Your task to perform on an android device: change keyboard looks Image 0: 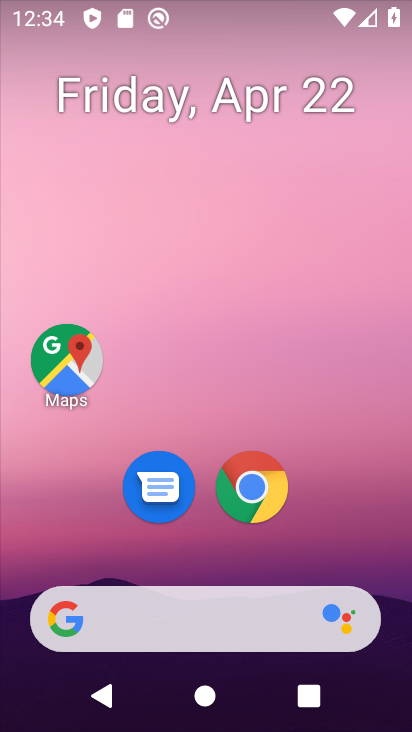
Step 0: drag from (208, 563) to (223, 59)
Your task to perform on an android device: change keyboard looks Image 1: 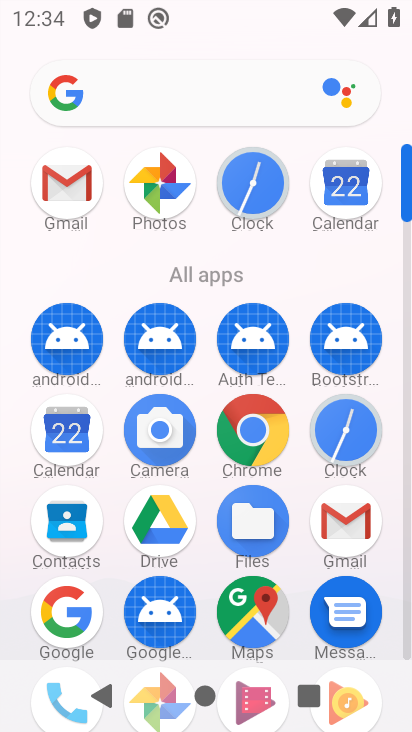
Step 1: drag from (203, 567) to (253, 125)
Your task to perform on an android device: change keyboard looks Image 2: 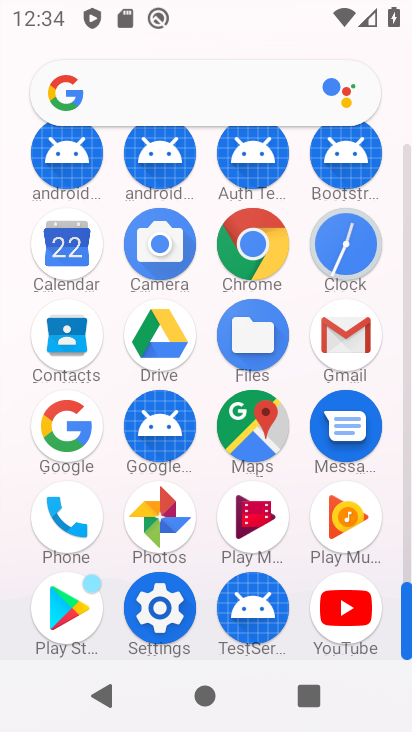
Step 2: click (154, 604)
Your task to perform on an android device: change keyboard looks Image 3: 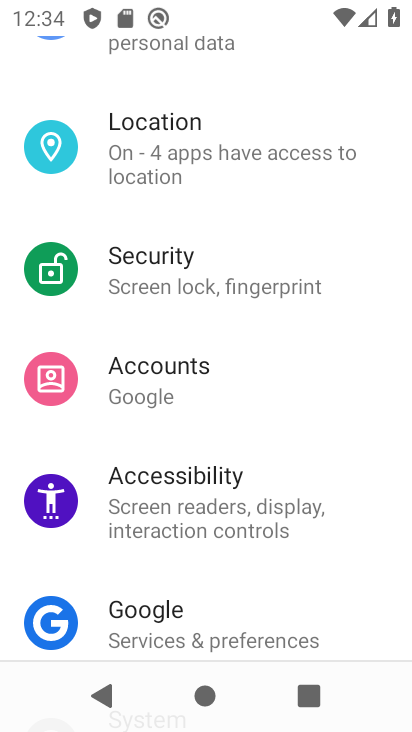
Step 3: drag from (257, 593) to (252, 194)
Your task to perform on an android device: change keyboard looks Image 4: 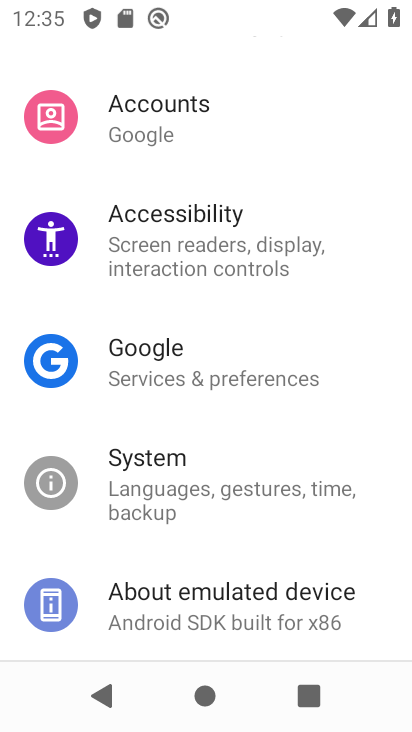
Step 4: click (184, 501)
Your task to perform on an android device: change keyboard looks Image 5: 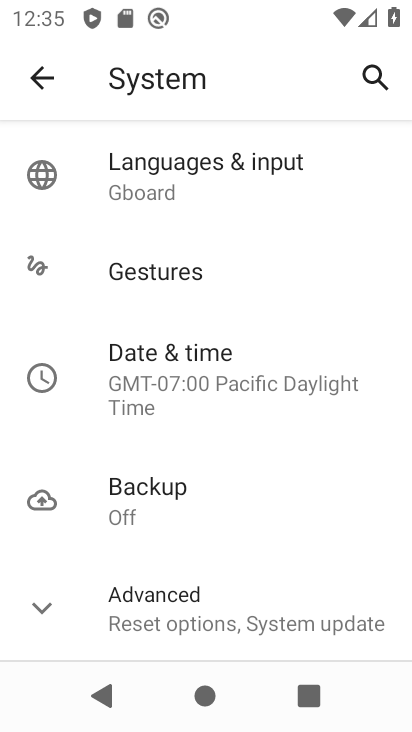
Step 5: drag from (202, 392) to (206, 190)
Your task to perform on an android device: change keyboard looks Image 6: 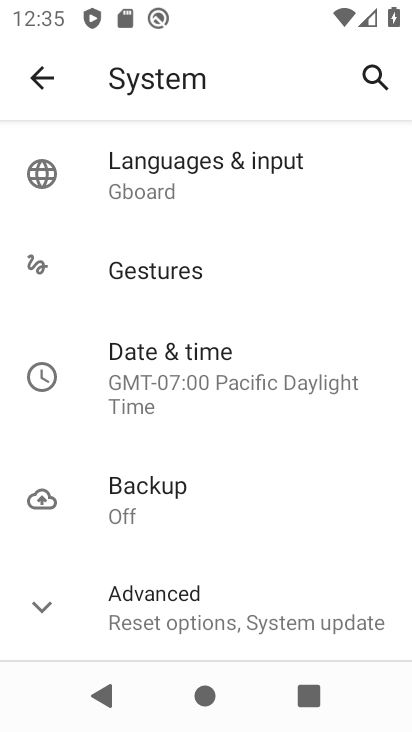
Step 6: click (190, 181)
Your task to perform on an android device: change keyboard looks Image 7: 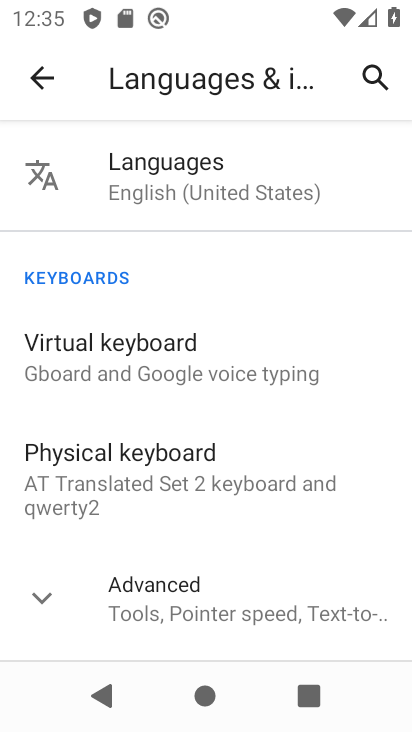
Step 7: drag from (195, 237) to (172, 367)
Your task to perform on an android device: change keyboard looks Image 8: 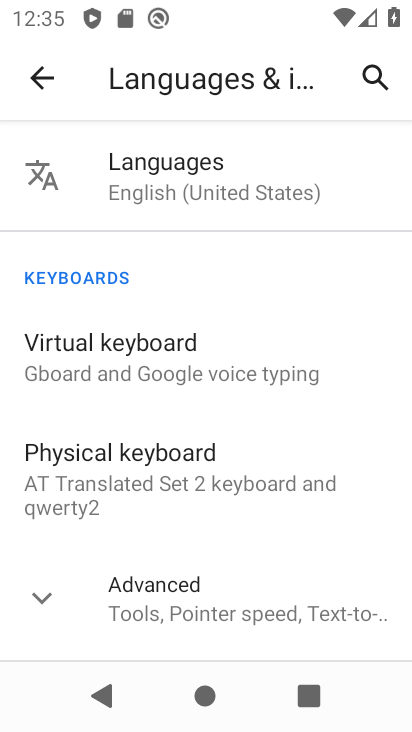
Step 8: click (151, 356)
Your task to perform on an android device: change keyboard looks Image 9: 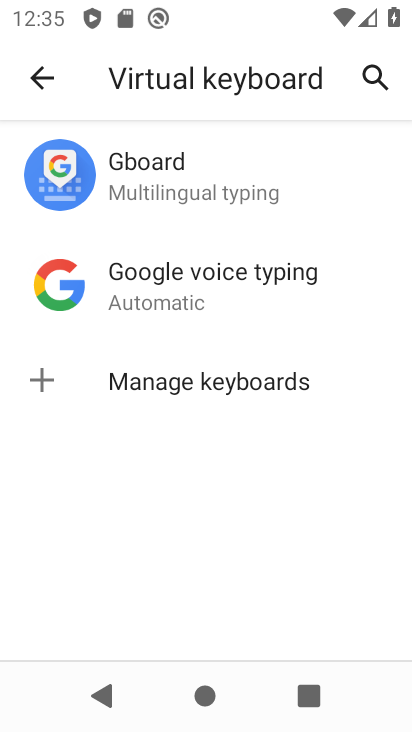
Step 9: click (259, 169)
Your task to perform on an android device: change keyboard looks Image 10: 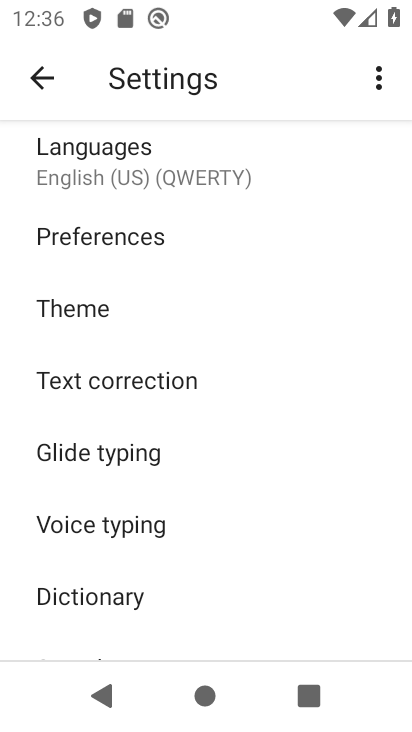
Step 10: click (130, 304)
Your task to perform on an android device: change keyboard looks Image 11: 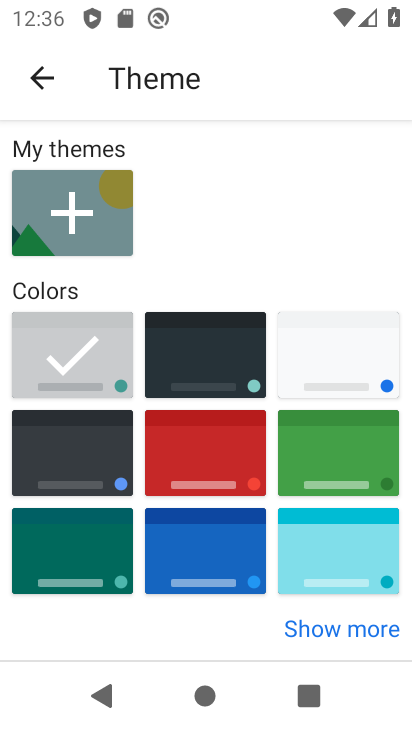
Step 11: click (185, 336)
Your task to perform on an android device: change keyboard looks Image 12: 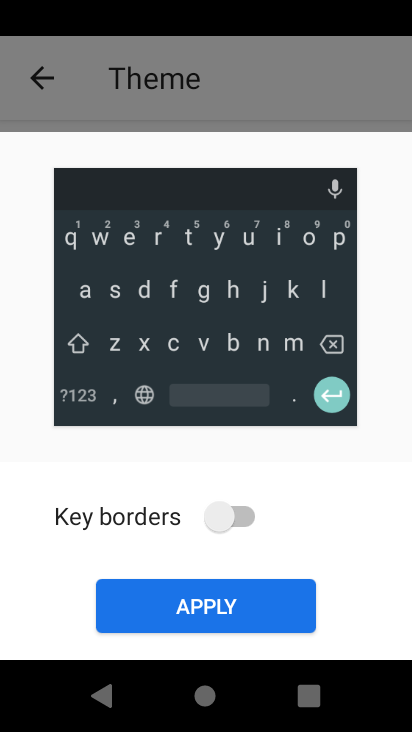
Step 12: click (233, 596)
Your task to perform on an android device: change keyboard looks Image 13: 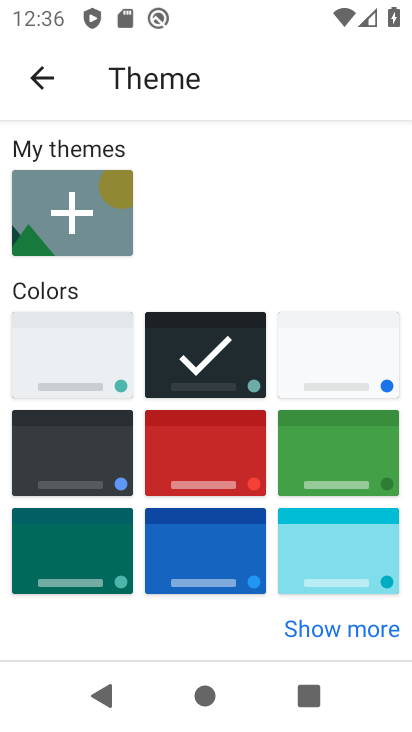
Step 13: task complete